Your task to perform on an android device: What's the weather today? Image 0: 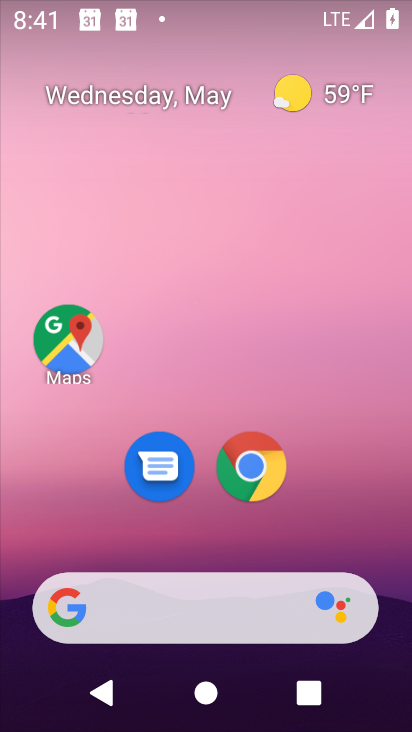
Step 0: drag from (351, 537) to (348, 192)
Your task to perform on an android device: What's the weather today? Image 1: 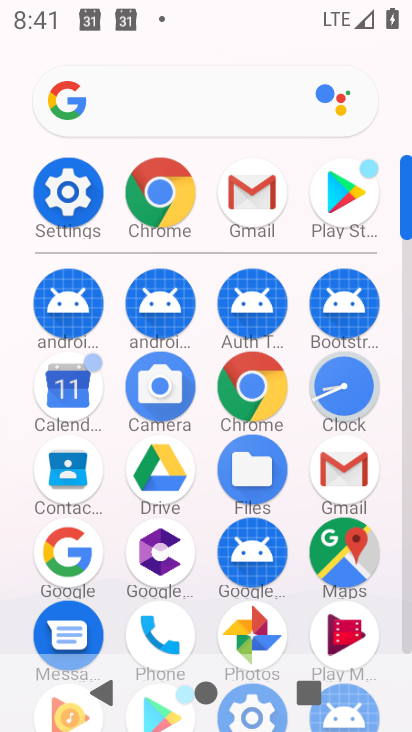
Step 1: click (158, 195)
Your task to perform on an android device: What's the weather today? Image 2: 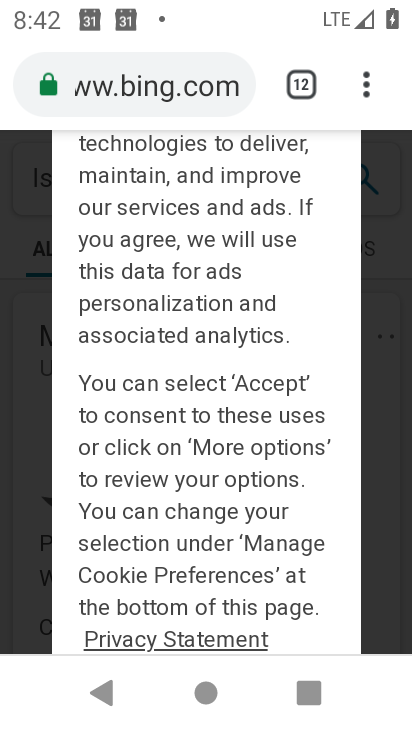
Step 2: click (344, 86)
Your task to perform on an android device: What's the weather today? Image 3: 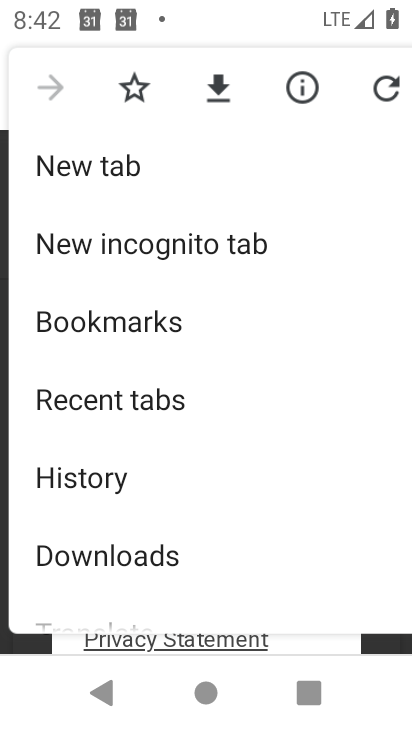
Step 3: click (82, 153)
Your task to perform on an android device: What's the weather today? Image 4: 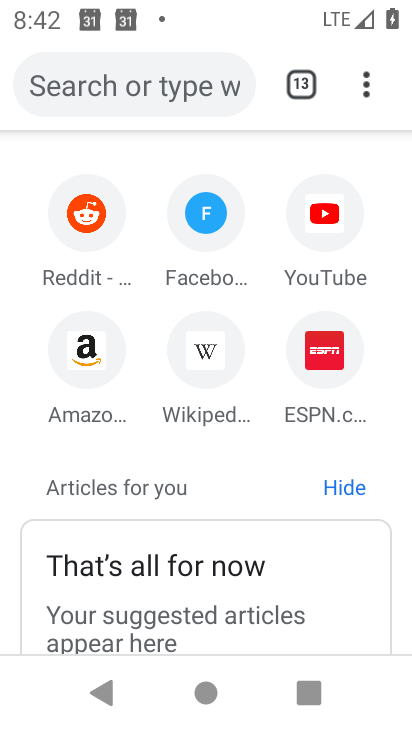
Step 4: click (134, 67)
Your task to perform on an android device: What's the weather today? Image 5: 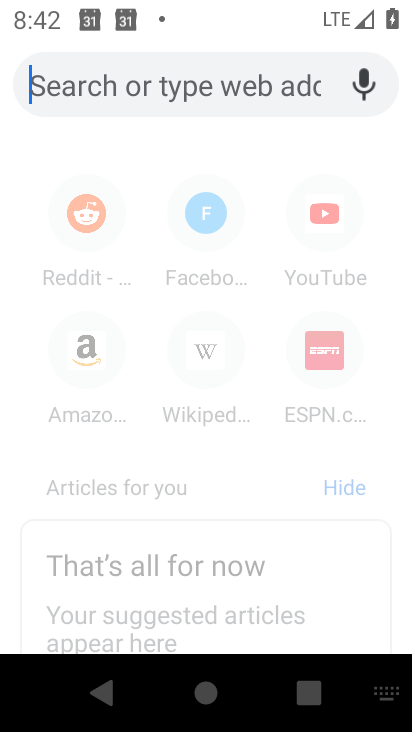
Step 5: type "What's the weather today?"
Your task to perform on an android device: What's the weather today? Image 6: 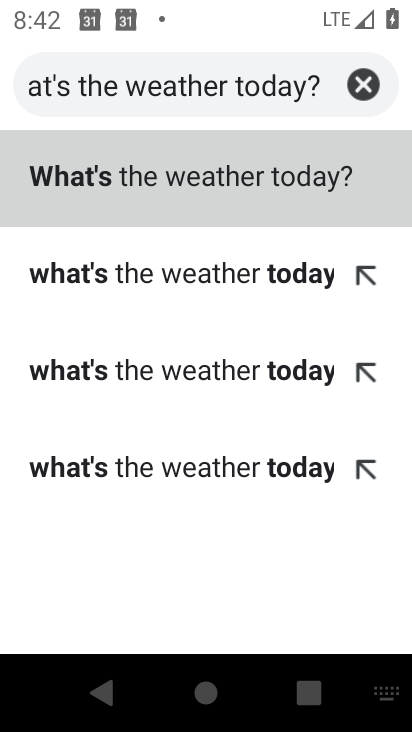
Step 6: click (104, 149)
Your task to perform on an android device: What's the weather today? Image 7: 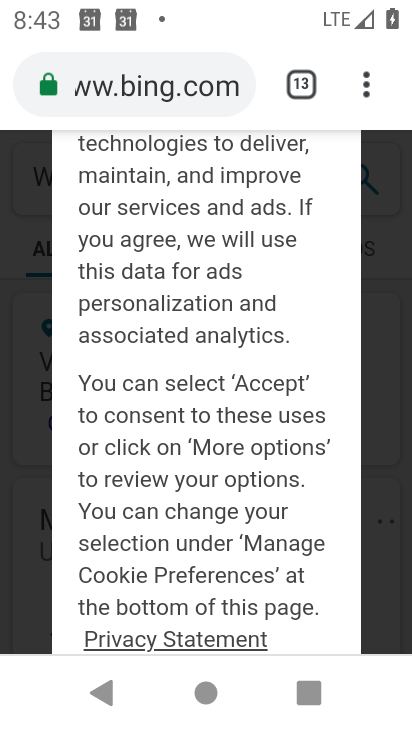
Step 7: task complete